Your task to perform on an android device: Open the Play Movies app and select the watchlist tab. Image 0: 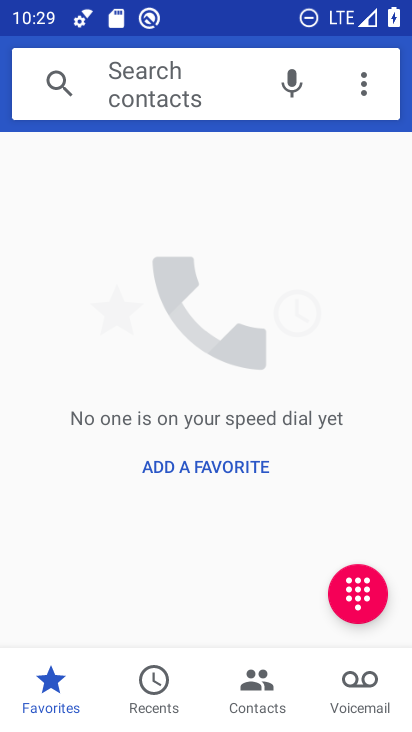
Step 0: press home button
Your task to perform on an android device: Open the Play Movies app and select the watchlist tab. Image 1: 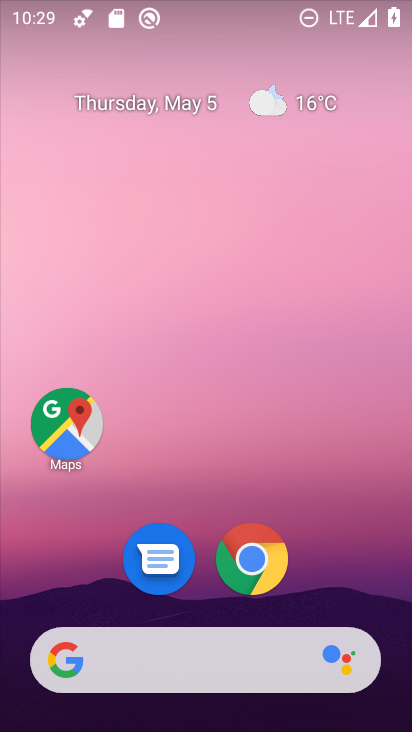
Step 1: drag from (385, 601) to (322, 84)
Your task to perform on an android device: Open the Play Movies app and select the watchlist tab. Image 2: 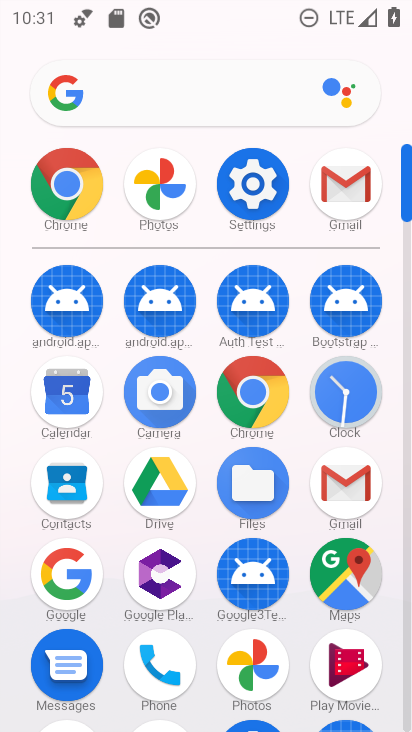
Step 2: click (342, 655)
Your task to perform on an android device: Open the Play Movies app and select the watchlist tab. Image 3: 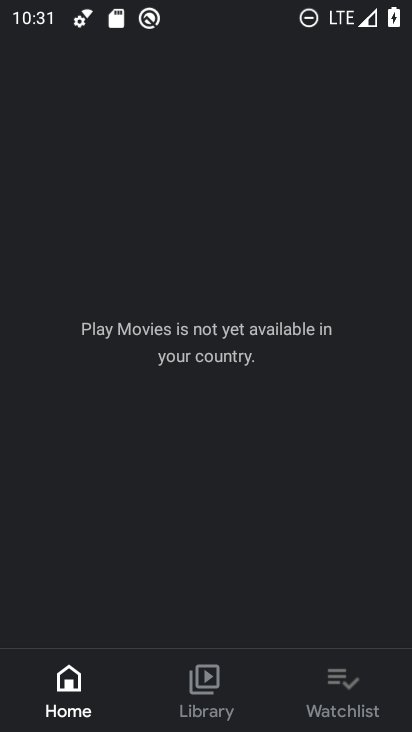
Step 3: click (357, 676)
Your task to perform on an android device: Open the Play Movies app and select the watchlist tab. Image 4: 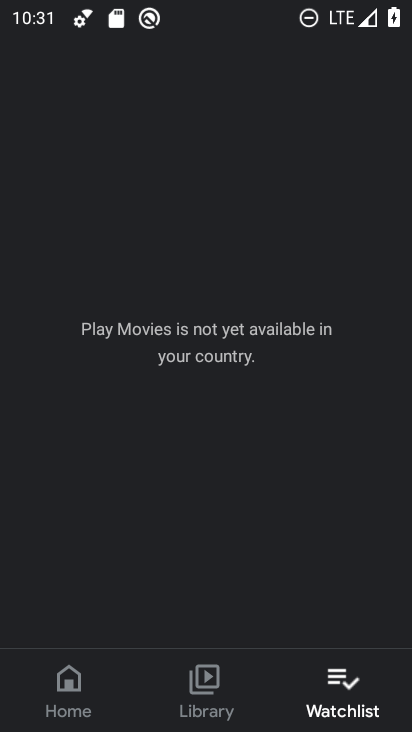
Step 4: task complete